Your task to perform on an android device: empty trash in the gmail app Image 0: 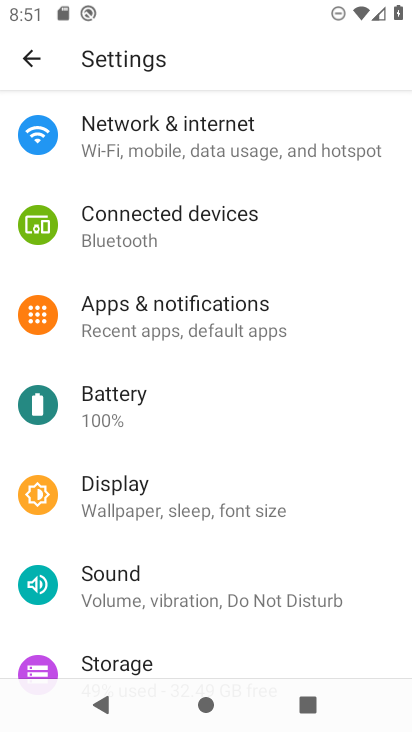
Step 0: press home button
Your task to perform on an android device: empty trash in the gmail app Image 1: 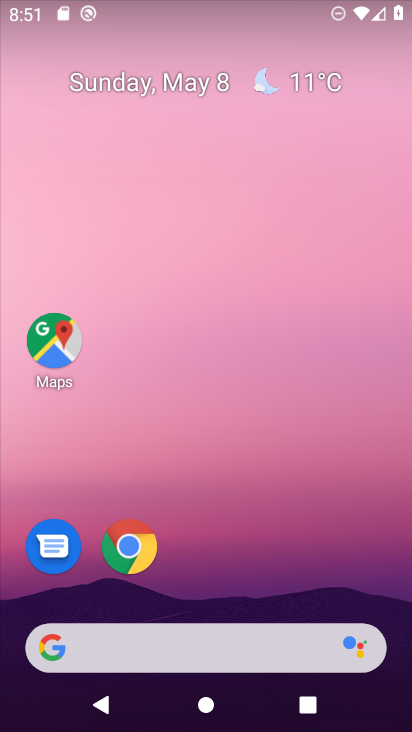
Step 1: drag from (195, 580) to (222, 13)
Your task to perform on an android device: empty trash in the gmail app Image 2: 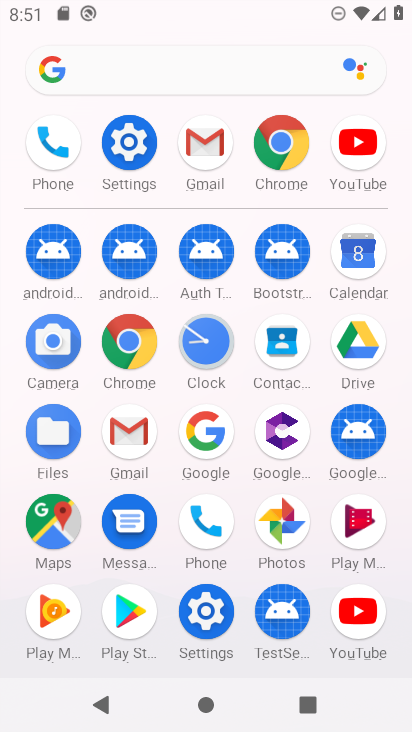
Step 2: click (211, 147)
Your task to perform on an android device: empty trash in the gmail app Image 3: 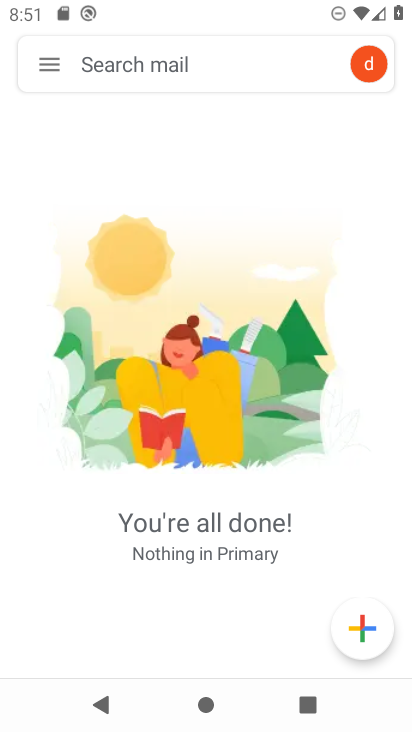
Step 3: click (52, 65)
Your task to perform on an android device: empty trash in the gmail app Image 4: 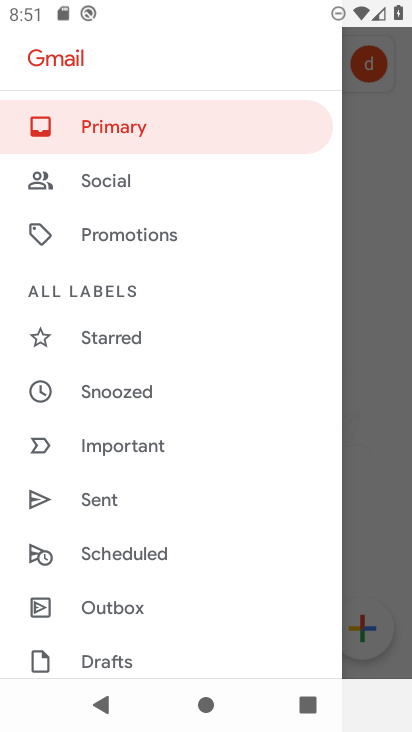
Step 4: drag from (163, 589) to (200, 185)
Your task to perform on an android device: empty trash in the gmail app Image 5: 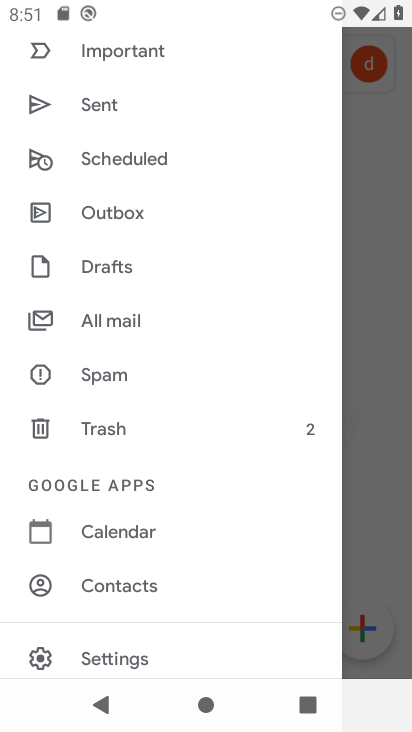
Step 5: click (128, 419)
Your task to perform on an android device: empty trash in the gmail app Image 6: 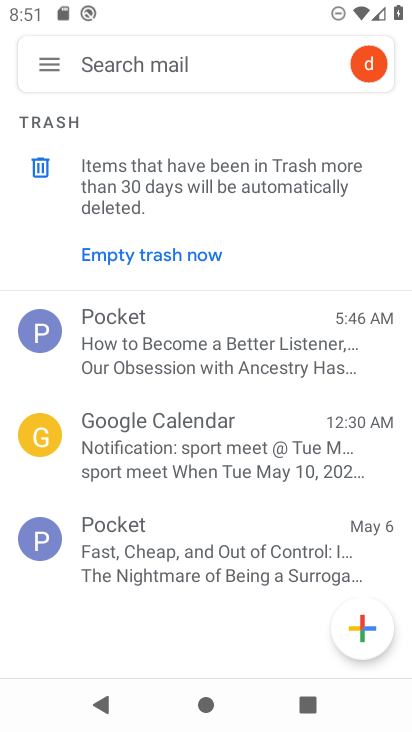
Step 6: click (162, 249)
Your task to perform on an android device: empty trash in the gmail app Image 7: 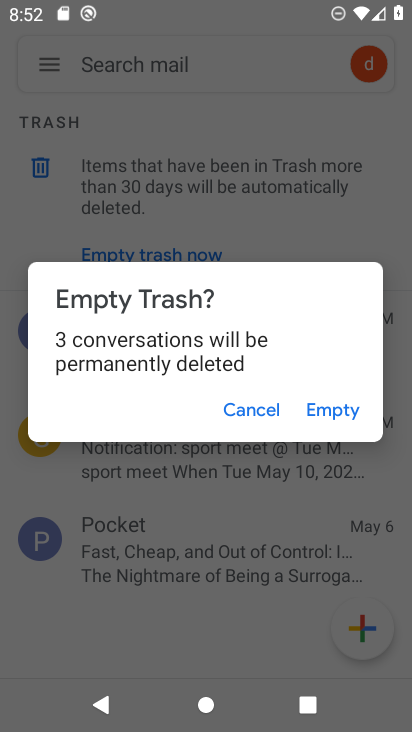
Step 7: click (320, 410)
Your task to perform on an android device: empty trash in the gmail app Image 8: 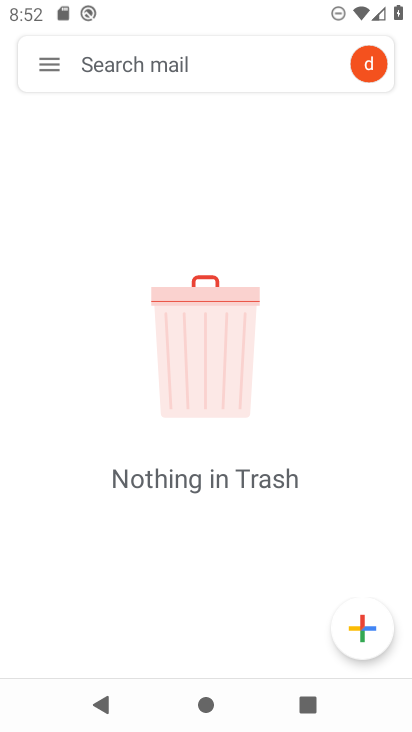
Step 8: task complete